Your task to perform on an android device: Open sound settings Image 0: 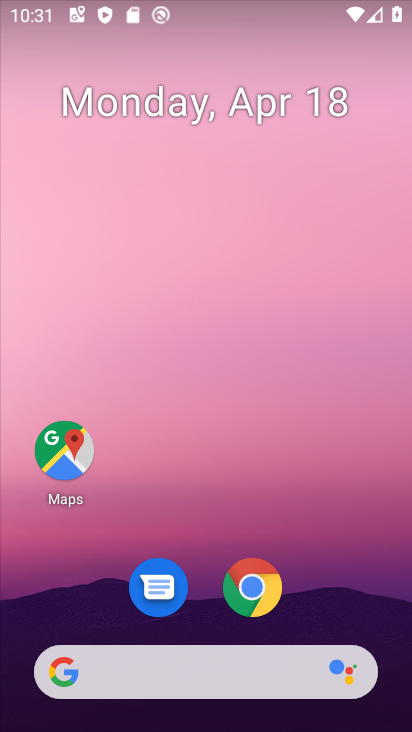
Step 0: drag from (367, 588) to (340, 87)
Your task to perform on an android device: Open sound settings Image 1: 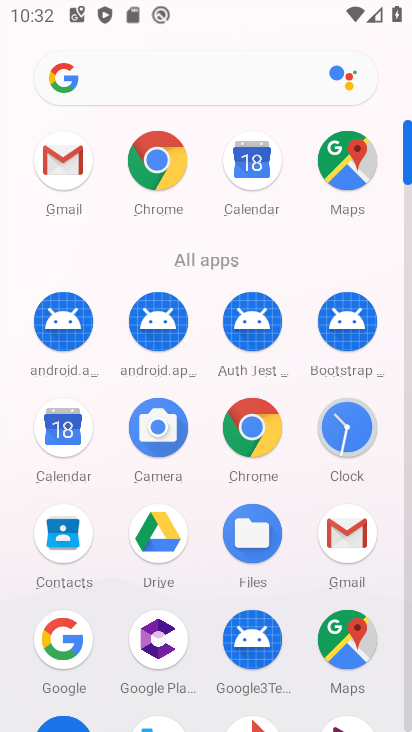
Step 1: drag from (194, 533) to (178, 295)
Your task to perform on an android device: Open sound settings Image 2: 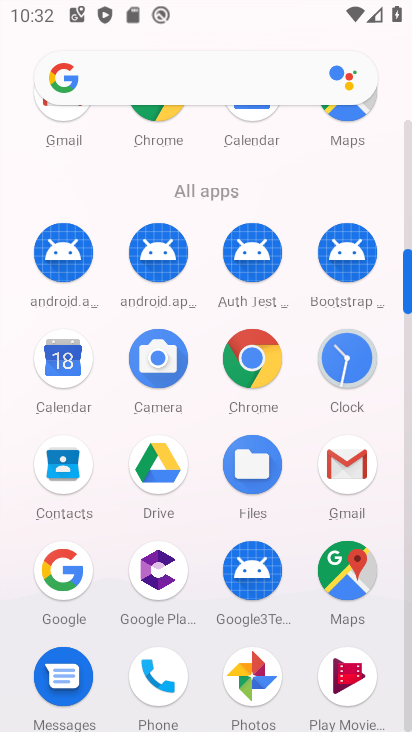
Step 2: drag from (188, 609) to (192, 336)
Your task to perform on an android device: Open sound settings Image 3: 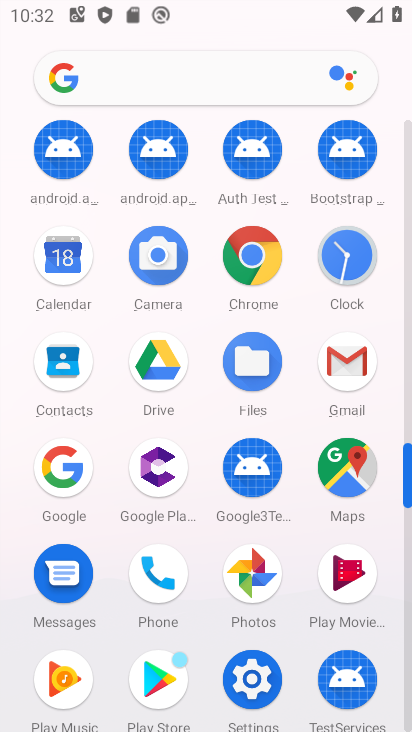
Step 3: click (252, 674)
Your task to perform on an android device: Open sound settings Image 4: 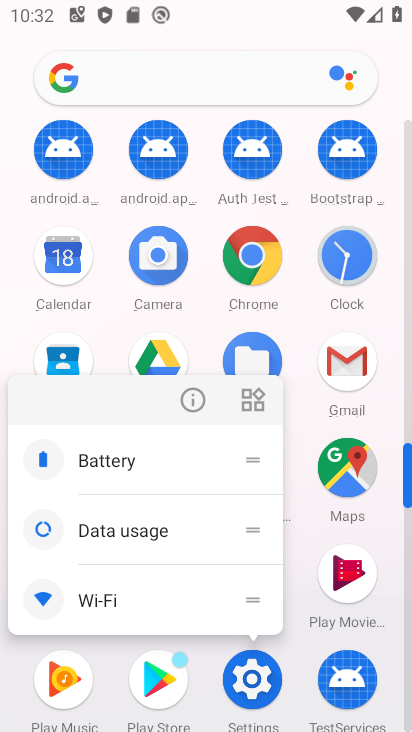
Step 4: click (251, 670)
Your task to perform on an android device: Open sound settings Image 5: 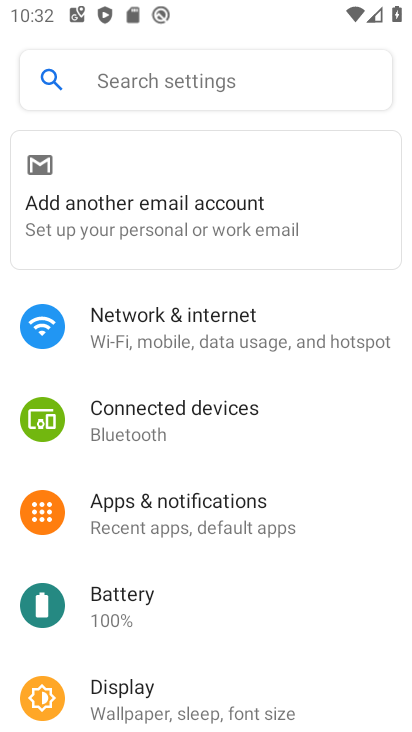
Step 5: drag from (242, 620) to (259, 308)
Your task to perform on an android device: Open sound settings Image 6: 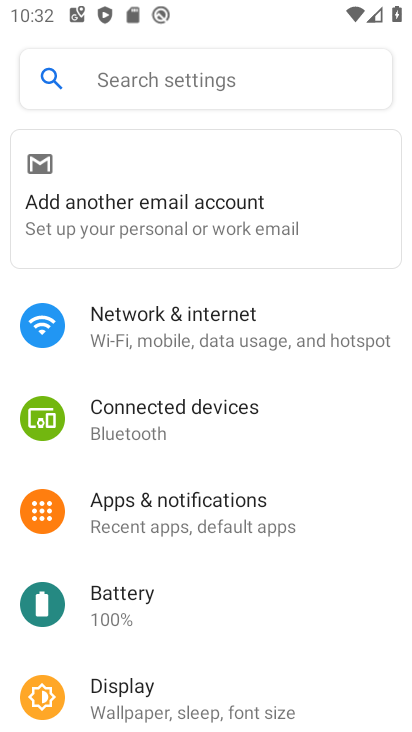
Step 6: drag from (296, 617) to (330, 290)
Your task to perform on an android device: Open sound settings Image 7: 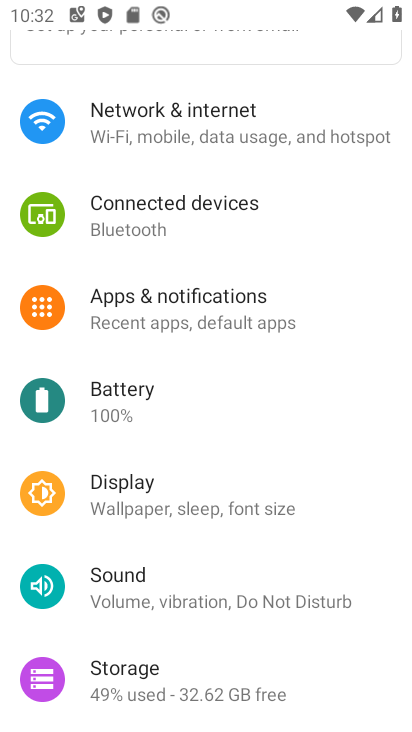
Step 7: click (219, 599)
Your task to perform on an android device: Open sound settings Image 8: 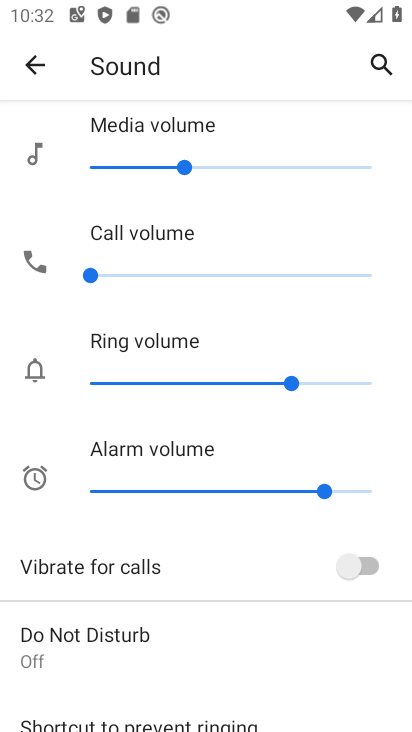
Step 8: task complete